Your task to perform on an android device: turn off smart reply in the gmail app Image 0: 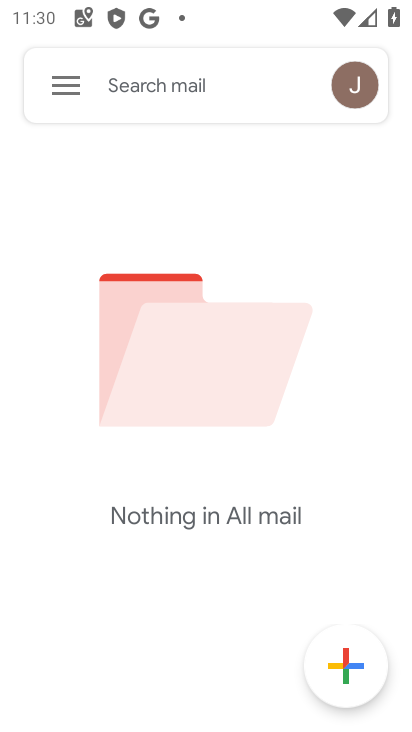
Step 0: click (78, 79)
Your task to perform on an android device: turn off smart reply in the gmail app Image 1: 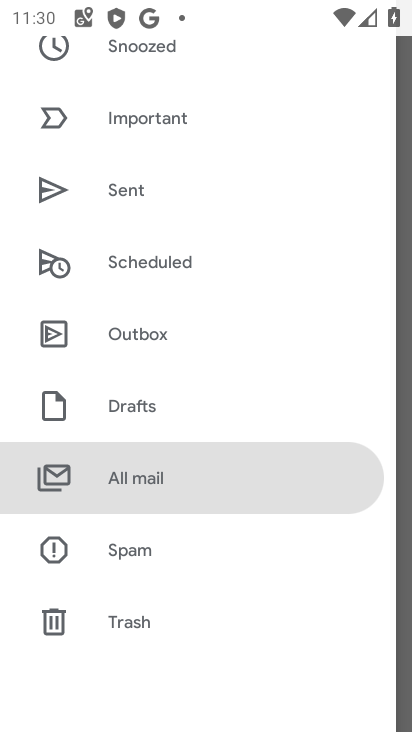
Step 1: drag from (141, 623) to (258, 98)
Your task to perform on an android device: turn off smart reply in the gmail app Image 2: 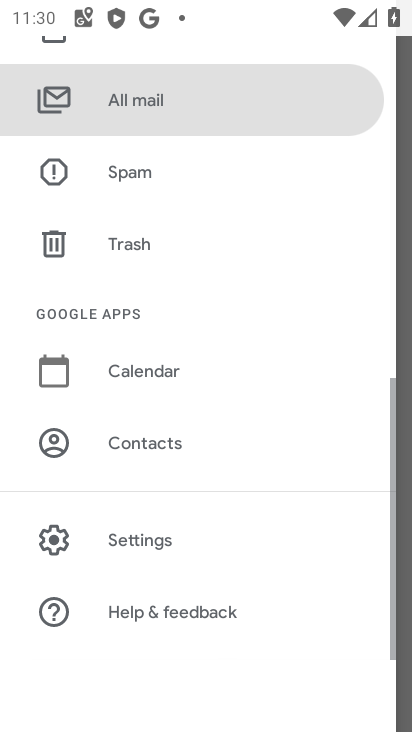
Step 2: click (129, 540)
Your task to perform on an android device: turn off smart reply in the gmail app Image 3: 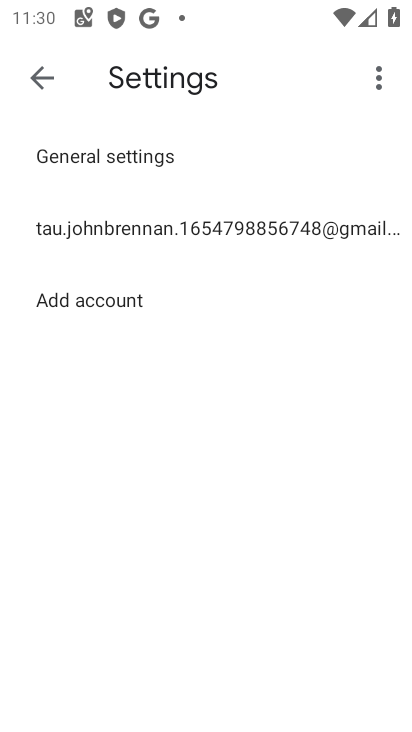
Step 3: click (153, 241)
Your task to perform on an android device: turn off smart reply in the gmail app Image 4: 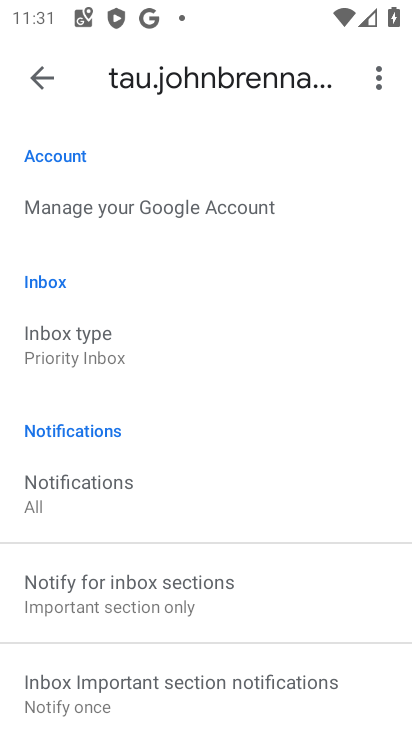
Step 4: drag from (159, 676) to (250, 135)
Your task to perform on an android device: turn off smart reply in the gmail app Image 5: 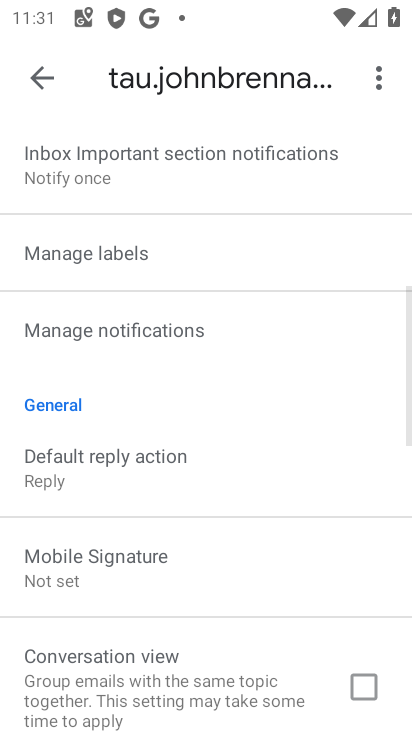
Step 5: drag from (140, 635) to (212, 157)
Your task to perform on an android device: turn off smart reply in the gmail app Image 6: 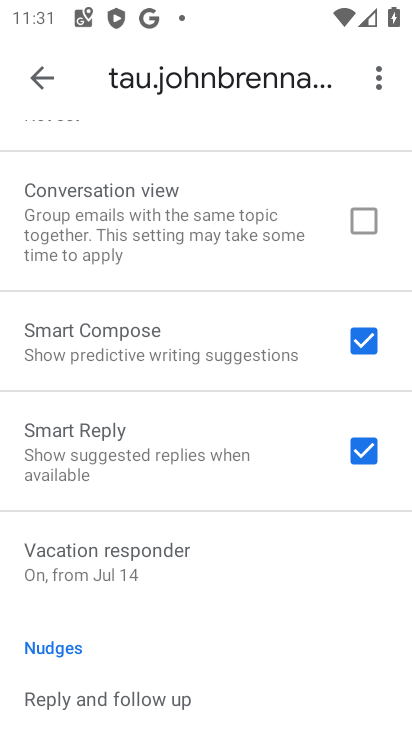
Step 6: click (366, 449)
Your task to perform on an android device: turn off smart reply in the gmail app Image 7: 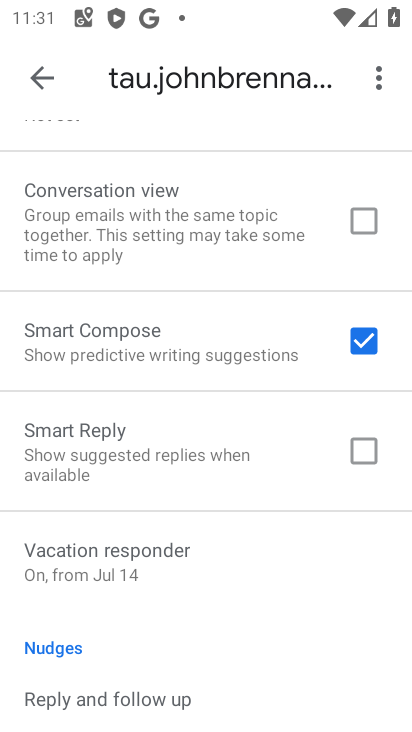
Step 7: task complete